Your task to perform on an android device: Do I have any events today? Image 0: 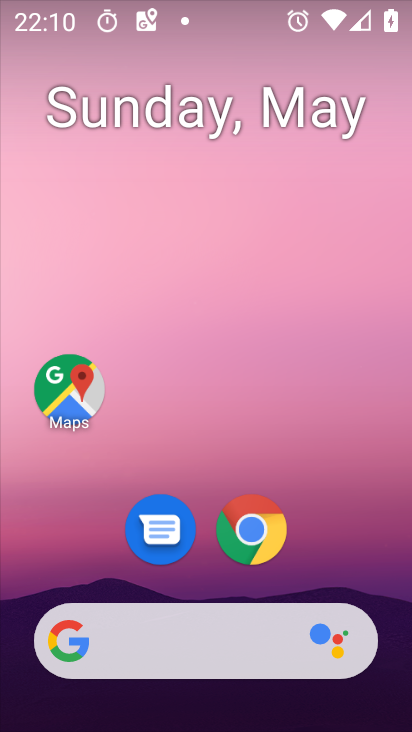
Step 0: drag from (357, 577) to (364, 3)
Your task to perform on an android device: Do I have any events today? Image 1: 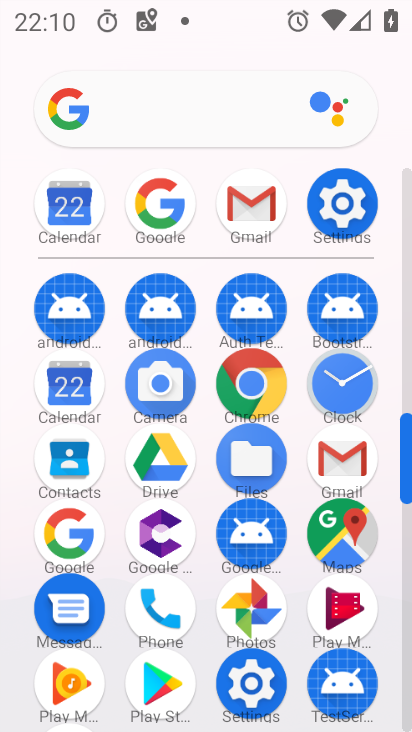
Step 1: click (71, 207)
Your task to perform on an android device: Do I have any events today? Image 2: 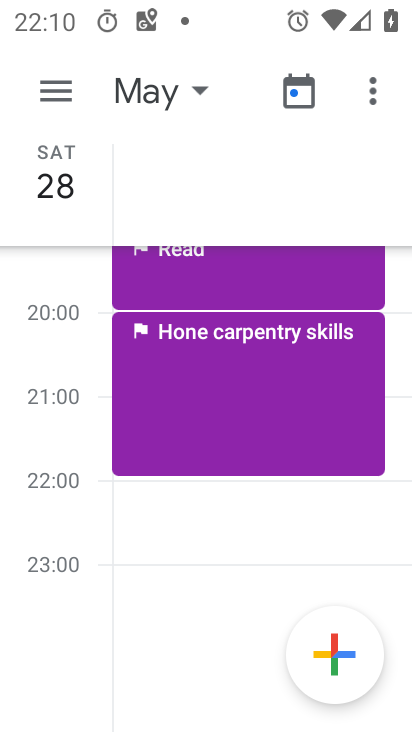
Step 2: click (294, 96)
Your task to perform on an android device: Do I have any events today? Image 3: 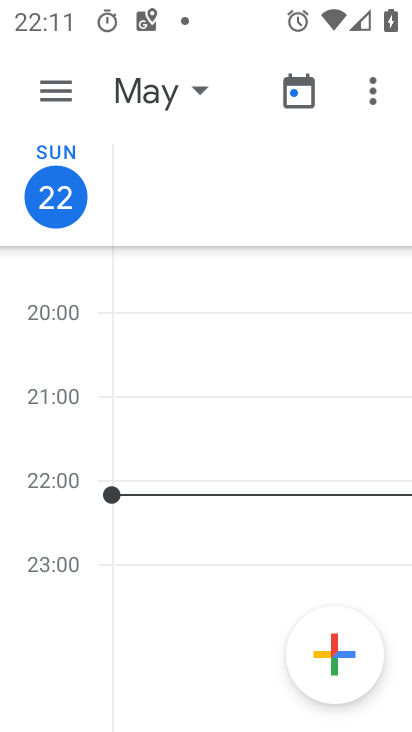
Step 3: drag from (205, 560) to (178, 204)
Your task to perform on an android device: Do I have any events today? Image 4: 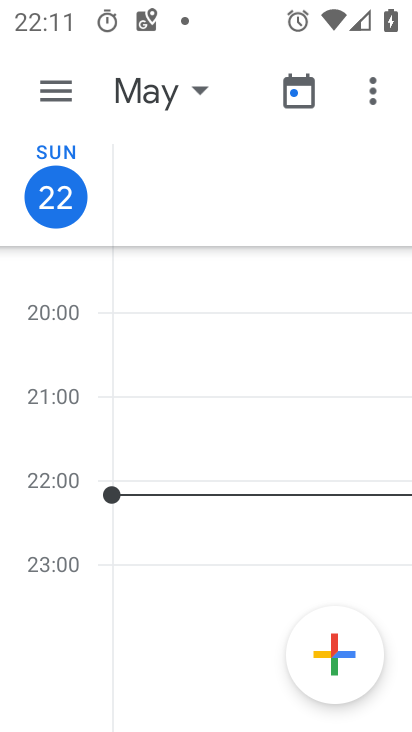
Step 4: drag from (176, 526) to (170, 255)
Your task to perform on an android device: Do I have any events today? Image 5: 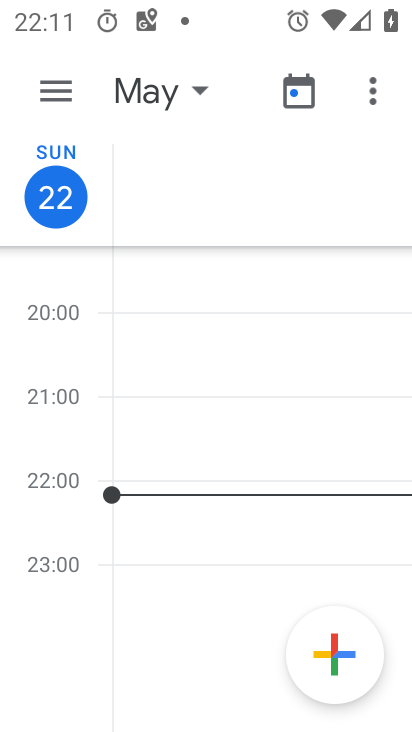
Step 5: click (57, 80)
Your task to perform on an android device: Do I have any events today? Image 6: 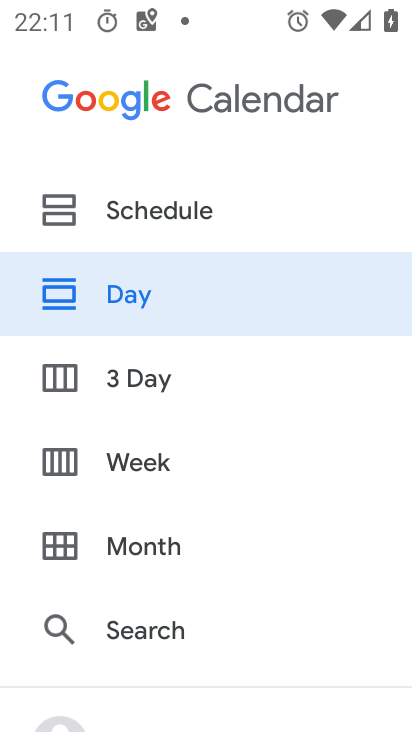
Step 6: click (115, 197)
Your task to perform on an android device: Do I have any events today? Image 7: 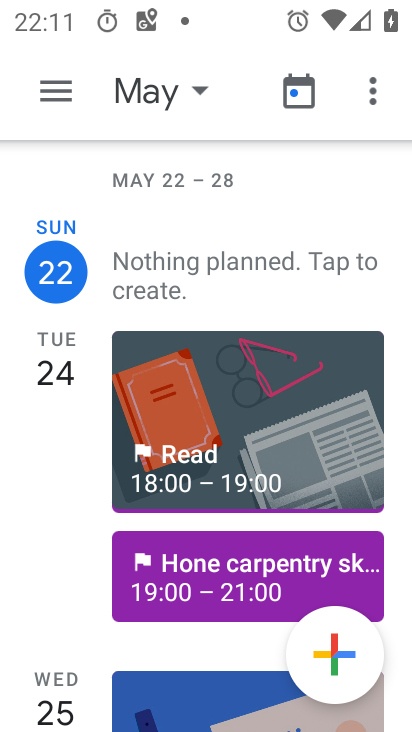
Step 7: click (155, 277)
Your task to perform on an android device: Do I have any events today? Image 8: 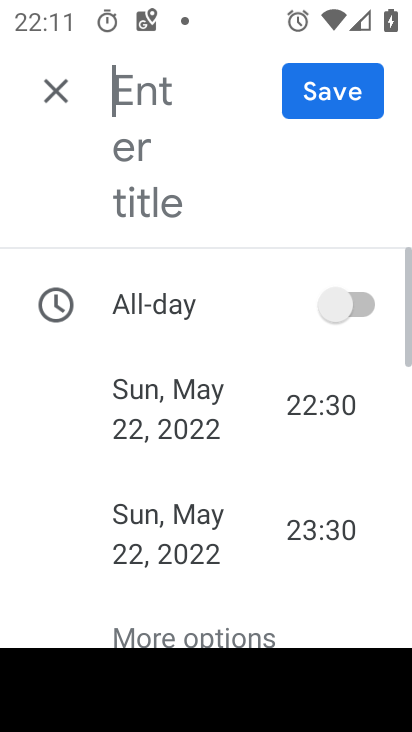
Step 8: task complete